Your task to perform on an android device: check battery use Image 0: 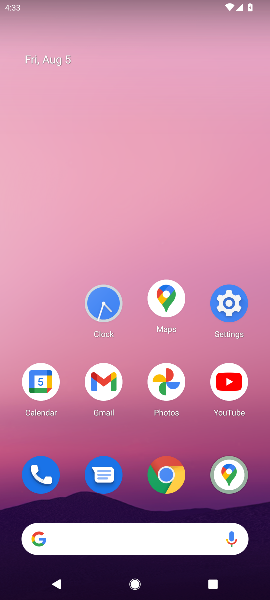
Step 0: click (229, 301)
Your task to perform on an android device: check battery use Image 1: 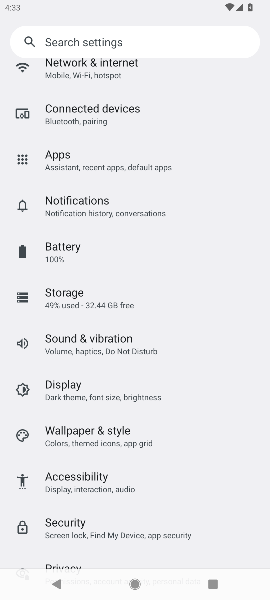
Step 1: click (60, 243)
Your task to perform on an android device: check battery use Image 2: 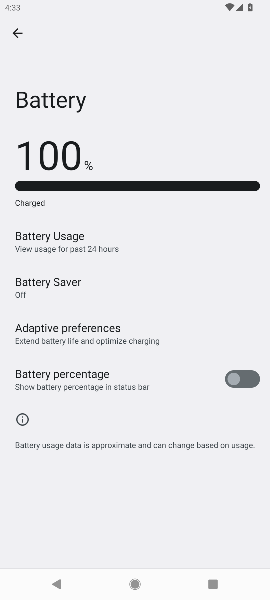
Step 2: click (60, 243)
Your task to perform on an android device: check battery use Image 3: 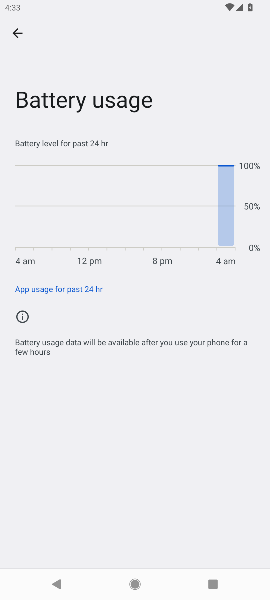
Step 3: task complete